Your task to perform on an android device: toggle wifi Image 0: 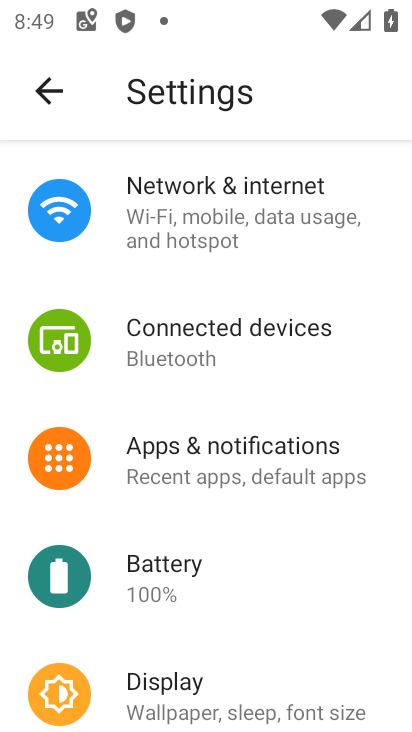
Step 0: click (229, 227)
Your task to perform on an android device: toggle wifi Image 1: 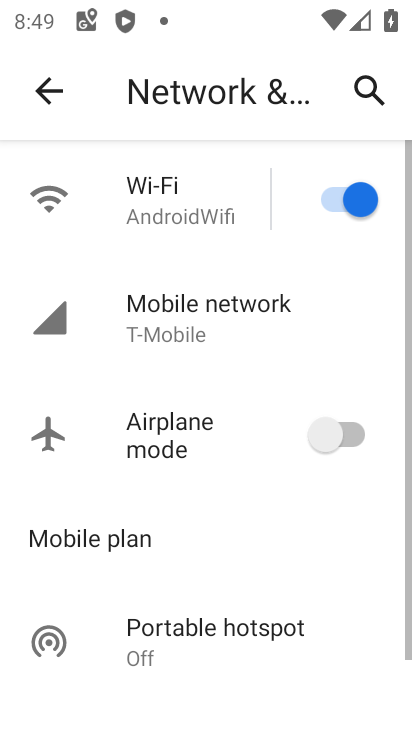
Step 1: click (372, 191)
Your task to perform on an android device: toggle wifi Image 2: 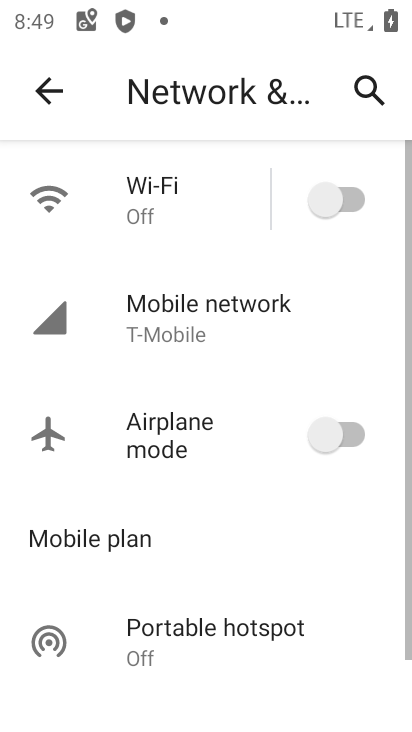
Step 2: task complete